Your task to perform on an android device: allow notifications from all sites in the chrome app Image 0: 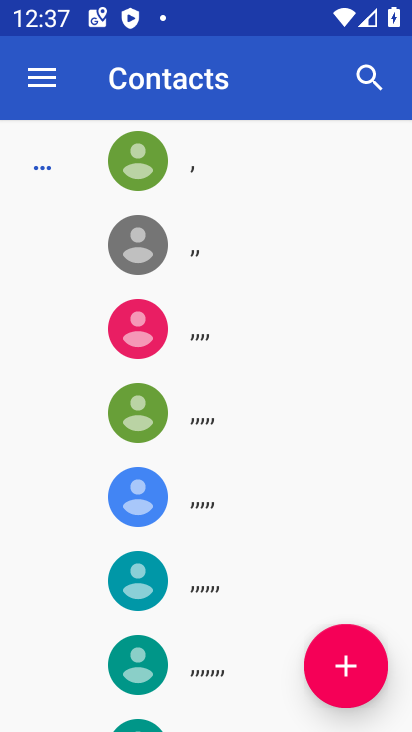
Step 0: press home button
Your task to perform on an android device: allow notifications from all sites in the chrome app Image 1: 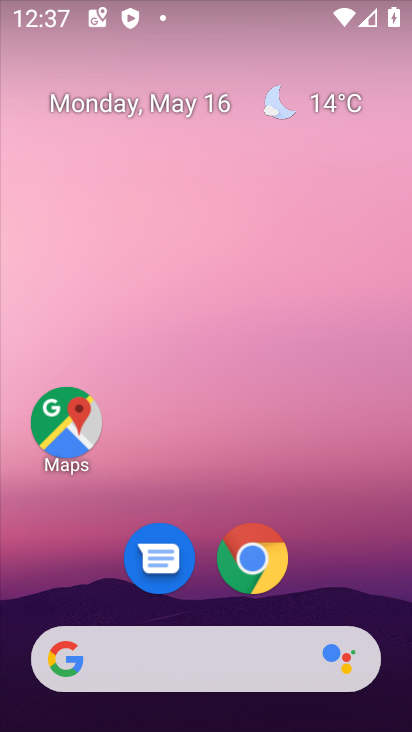
Step 1: drag from (314, 462) to (269, 67)
Your task to perform on an android device: allow notifications from all sites in the chrome app Image 2: 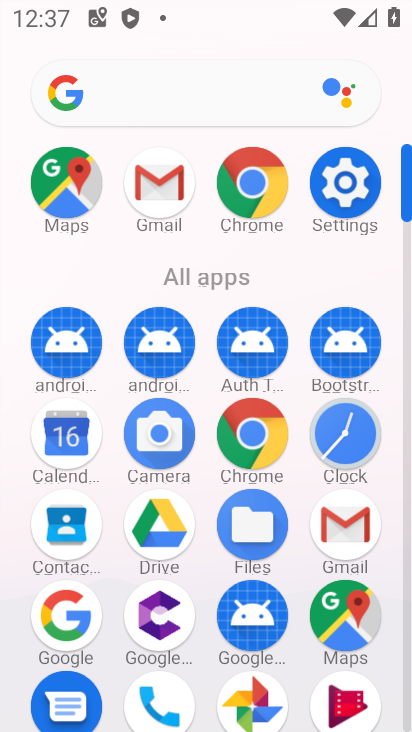
Step 2: click (256, 190)
Your task to perform on an android device: allow notifications from all sites in the chrome app Image 3: 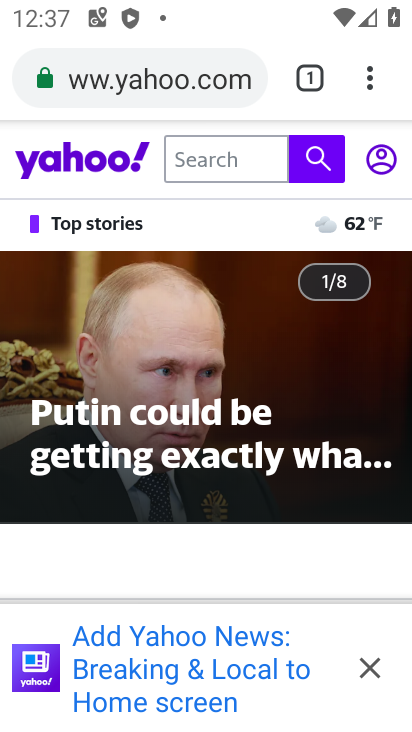
Step 3: drag from (369, 75) to (110, 633)
Your task to perform on an android device: allow notifications from all sites in the chrome app Image 4: 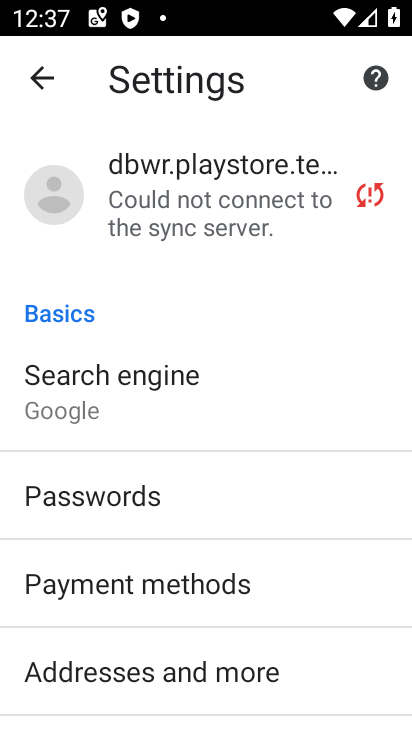
Step 4: drag from (165, 626) to (211, 100)
Your task to perform on an android device: allow notifications from all sites in the chrome app Image 5: 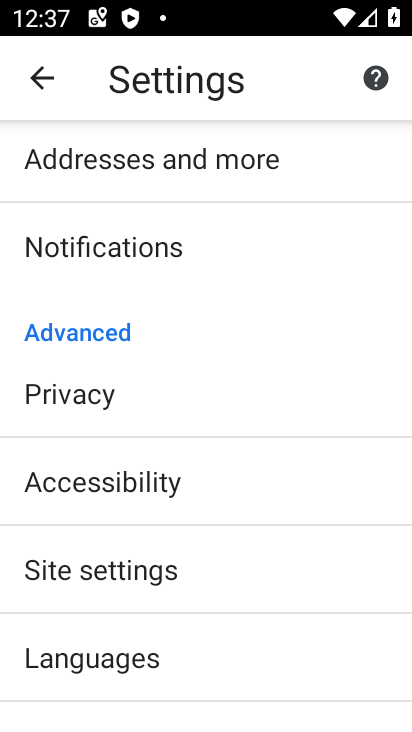
Step 5: click (95, 567)
Your task to perform on an android device: allow notifications from all sites in the chrome app Image 6: 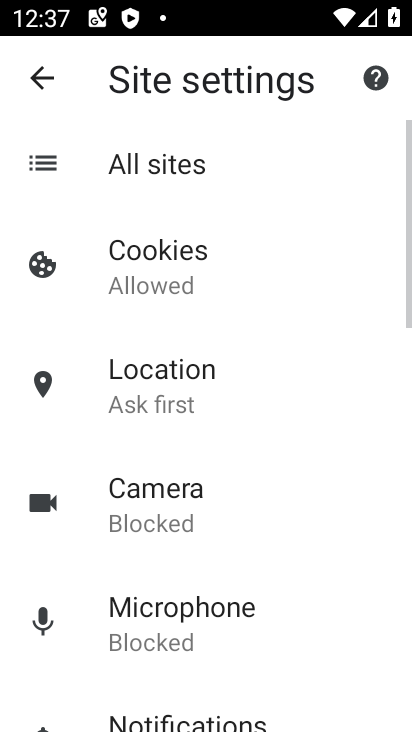
Step 6: drag from (132, 639) to (268, 77)
Your task to perform on an android device: allow notifications from all sites in the chrome app Image 7: 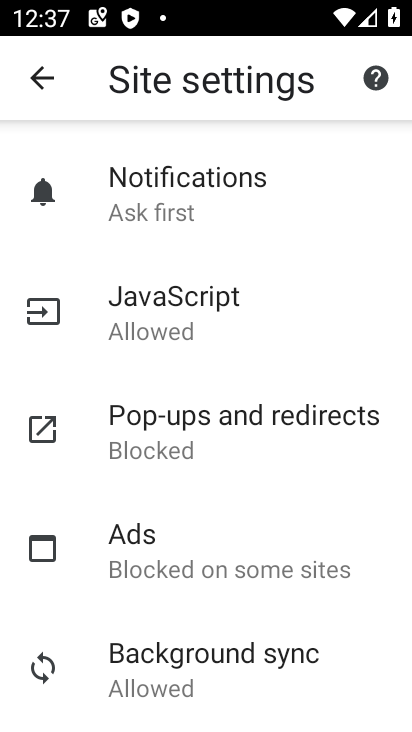
Step 7: drag from (270, 620) to (321, 122)
Your task to perform on an android device: allow notifications from all sites in the chrome app Image 8: 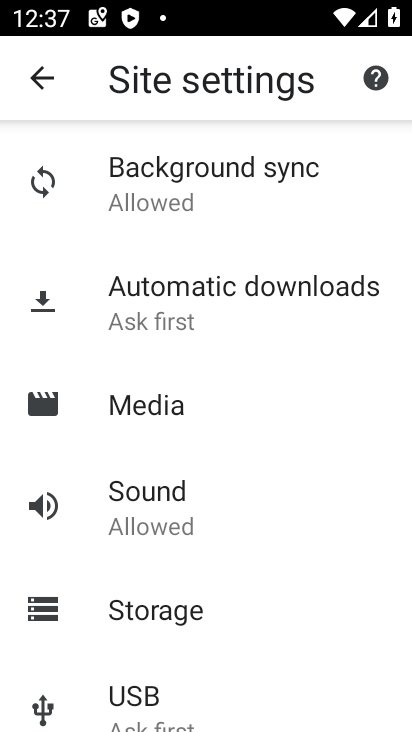
Step 8: drag from (224, 601) to (304, 129)
Your task to perform on an android device: allow notifications from all sites in the chrome app Image 9: 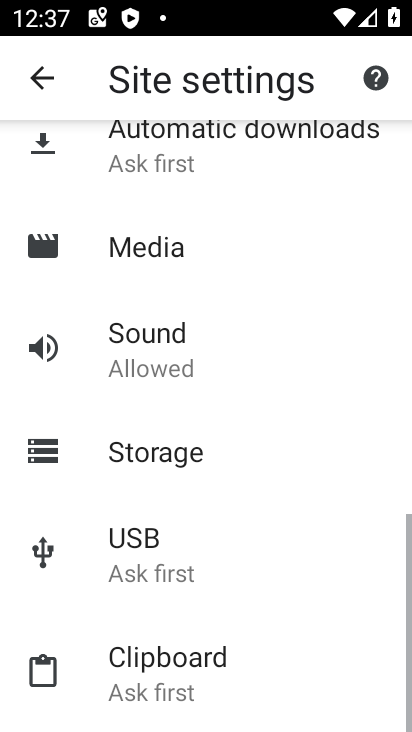
Step 9: drag from (269, 325) to (237, 725)
Your task to perform on an android device: allow notifications from all sites in the chrome app Image 10: 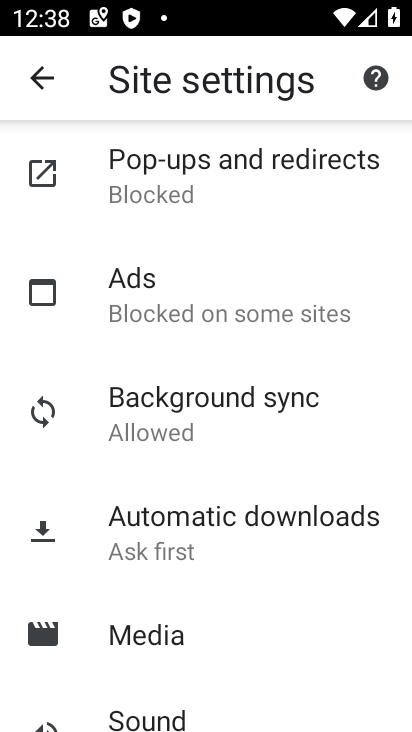
Step 10: drag from (304, 218) to (283, 699)
Your task to perform on an android device: allow notifications from all sites in the chrome app Image 11: 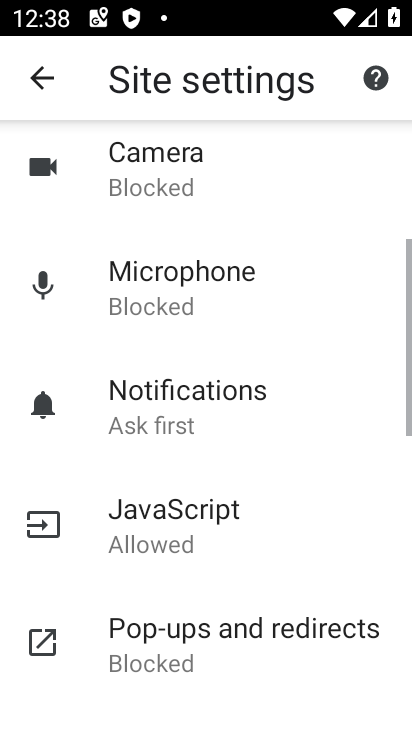
Step 11: drag from (278, 363) to (231, 718)
Your task to perform on an android device: allow notifications from all sites in the chrome app Image 12: 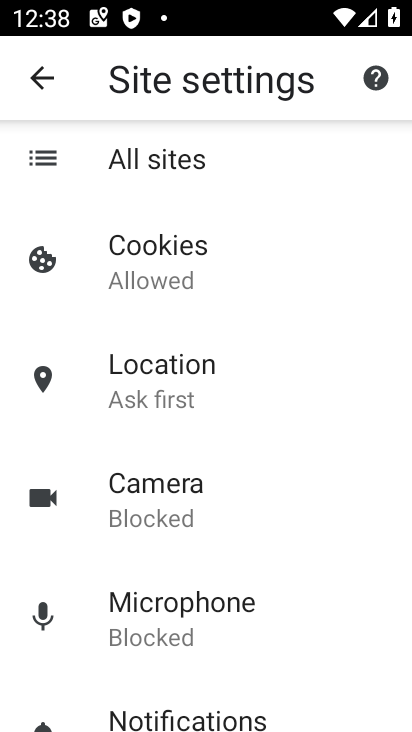
Step 12: drag from (178, 588) to (246, 242)
Your task to perform on an android device: allow notifications from all sites in the chrome app Image 13: 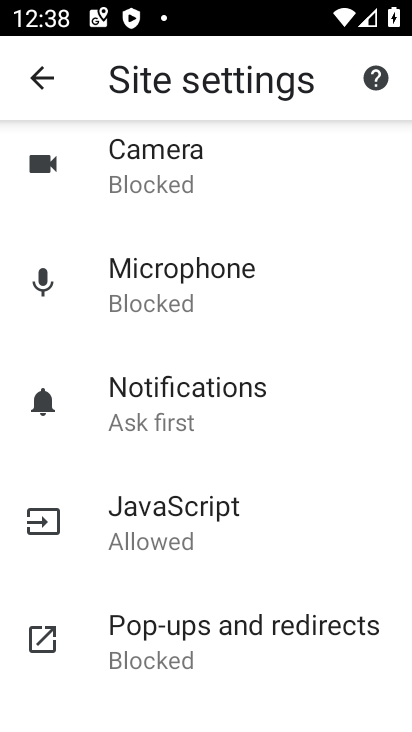
Step 13: click (200, 383)
Your task to perform on an android device: allow notifications from all sites in the chrome app Image 14: 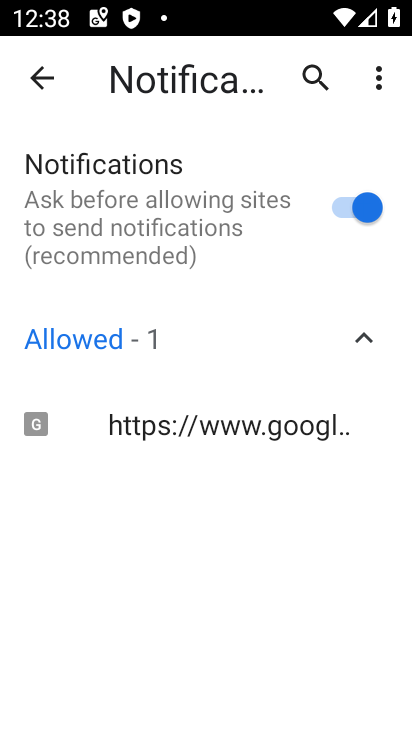
Step 14: task complete